Your task to perform on an android device: Open the calendar app, open the side menu, and click the "Day" option Image 0: 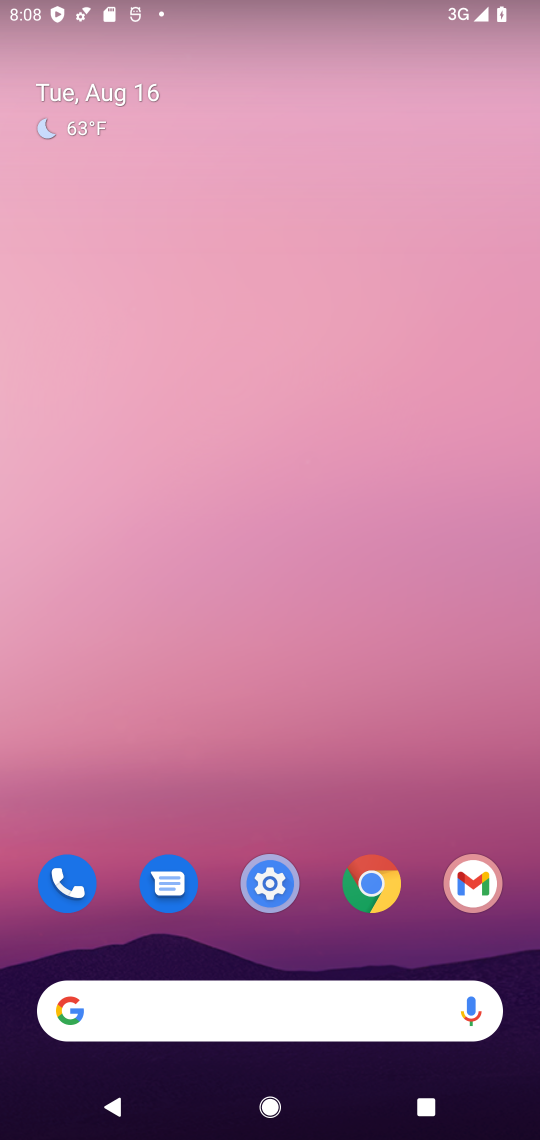
Step 0: drag from (336, 854) to (320, 235)
Your task to perform on an android device: Open the calendar app, open the side menu, and click the "Day" option Image 1: 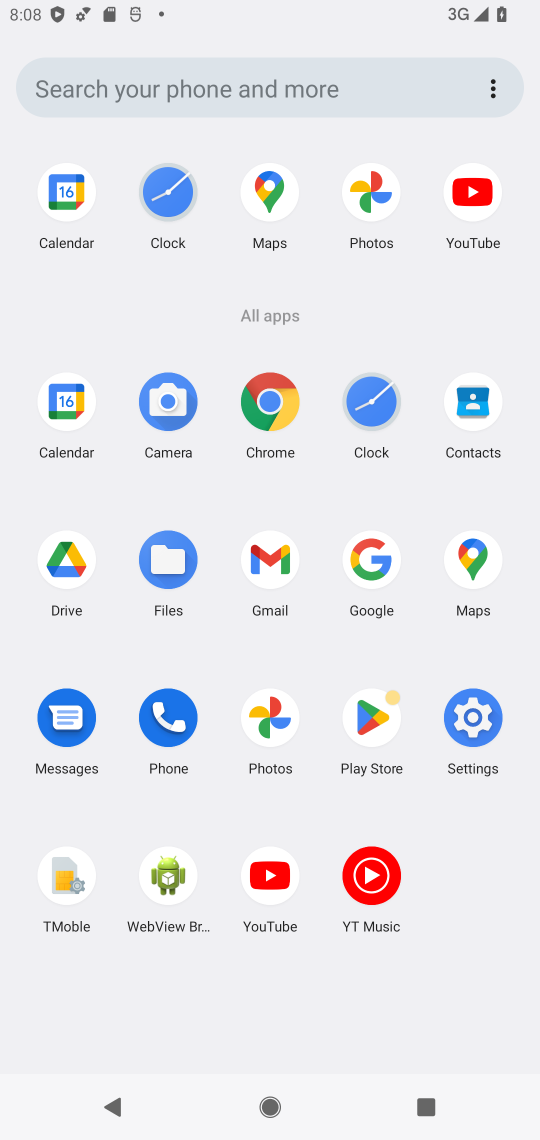
Step 1: click (58, 400)
Your task to perform on an android device: Open the calendar app, open the side menu, and click the "Day" option Image 2: 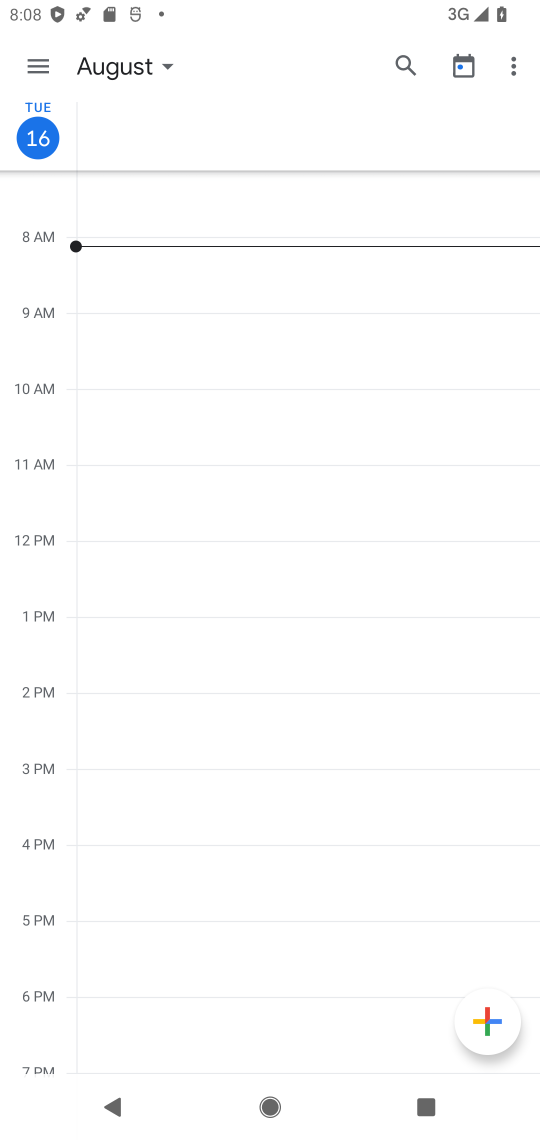
Step 2: click (34, 55)
Your task to perform on an android device: Open the calendar app, open the side menu, and click the "Day" option Image 3: 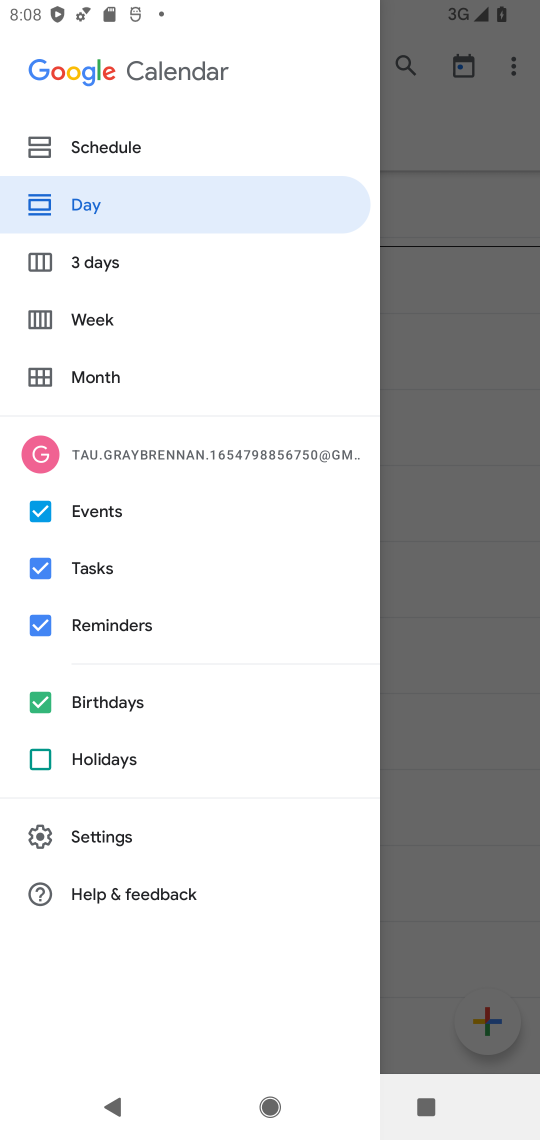
Step 3: click (98, 199)
Your task to perform on an android device: Open the calendar app, open the side menu, and click the "Day" option Image 4: 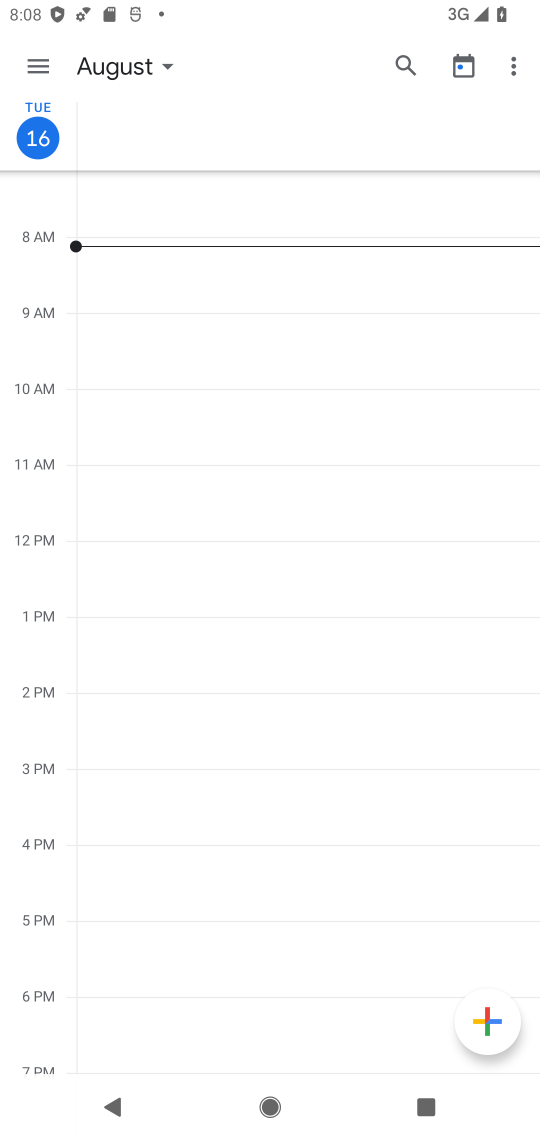
Step 4: task complete